Your task to perform on an android device: turn off sleep mode Image 0: 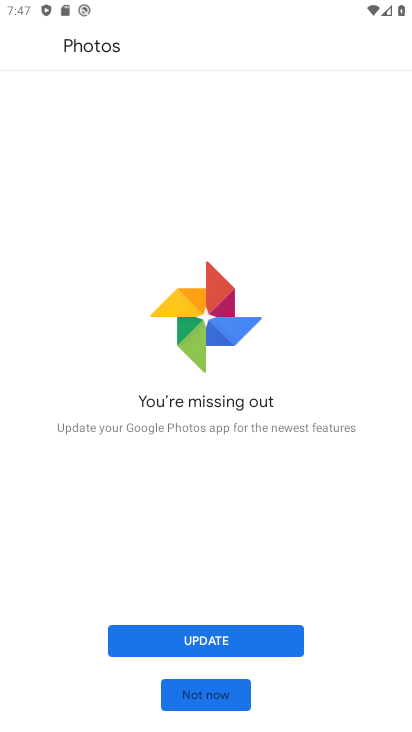
Step 0: press home button
Your task to perform on an android device: turn off sleep mode Image 1: 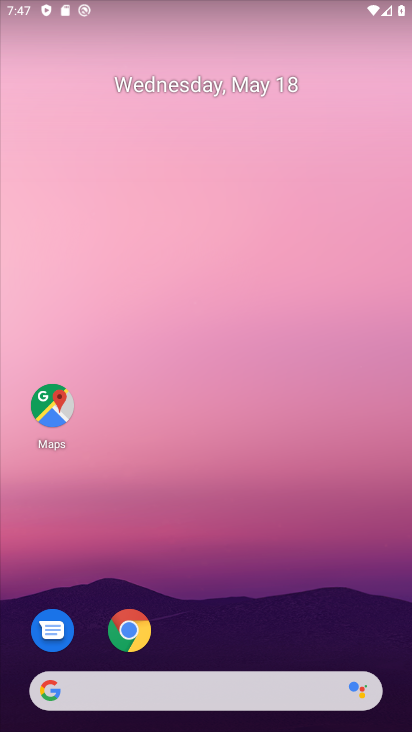
Step 1: drag from (241, 605) to (97, 97)
Your task to perform on an android device: turn off sleep mode Image 2: 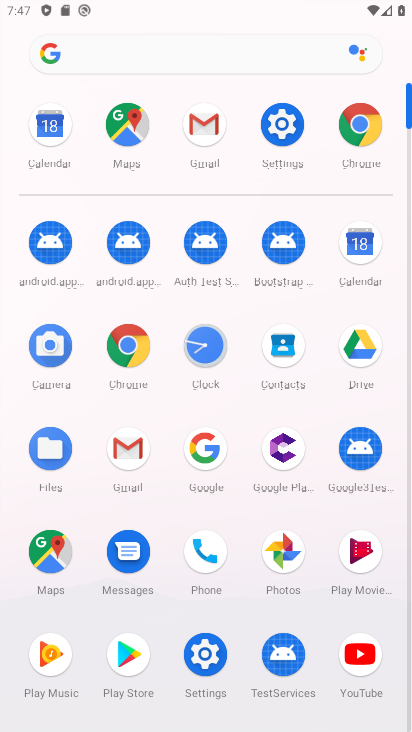
Step 2: click (251, 122)
Your task to perform on an android device: turn off sleep mode Image 3: 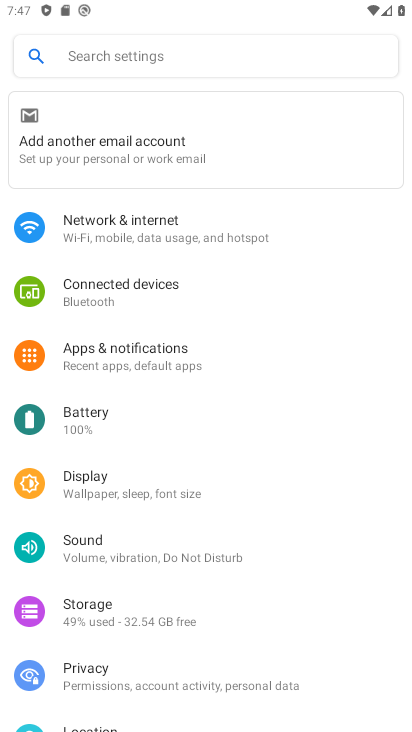
Step 3: click (89, 481)
Your task to perform on an android device: turn off sleep mode Image 4: 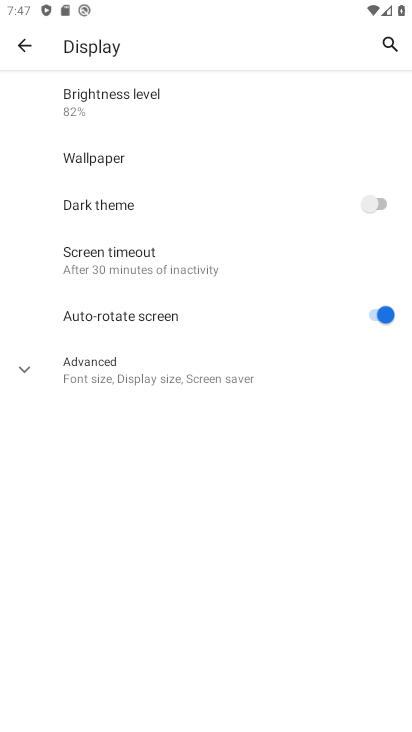
Step 4: task complete